Your task to perform on an android device: delete location history Image 0: 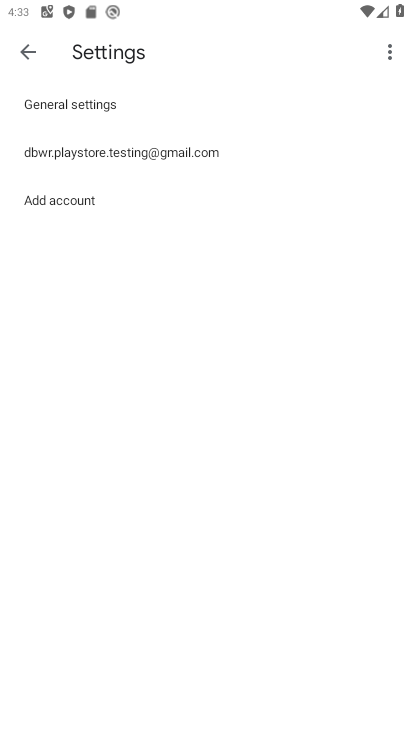
Step 0: click (201, 2)
Your task to perform on an android device: delete location history Image 1: 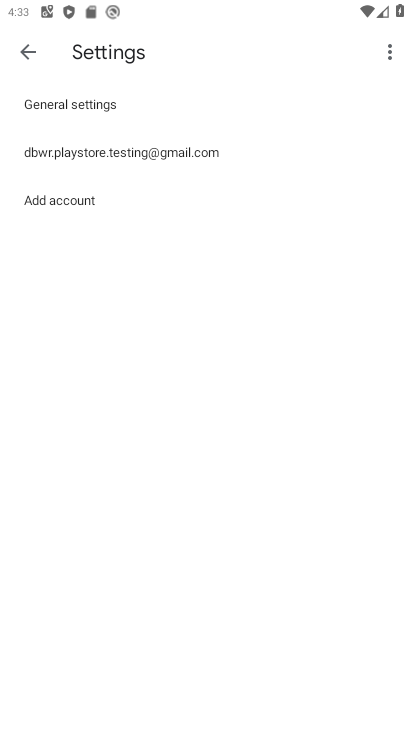
Step 1: press home button
Your task to perform on an android device: delete location history Image 2: 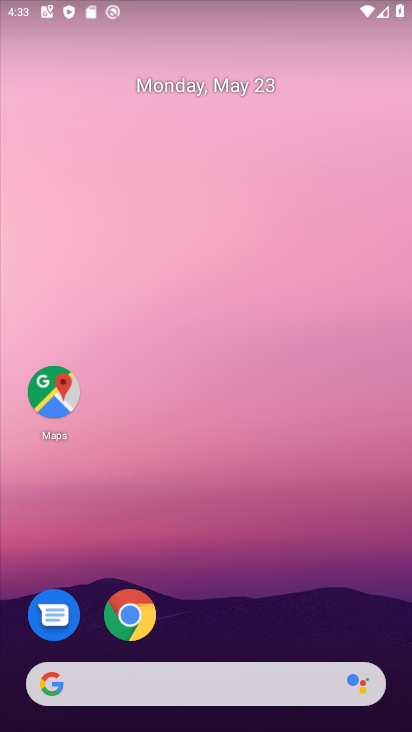
Step 2: click (55, 385)
Your task to perform on an android device: delete location history Image 3: 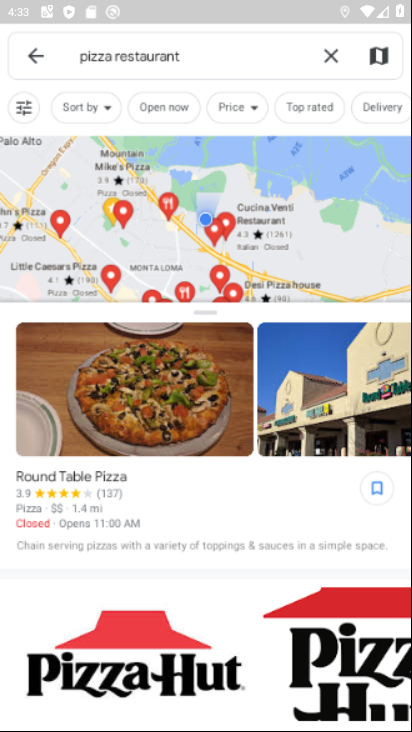
Step 3: click (36, 58)
Your task to perform on an android device: delete location history Image 4: 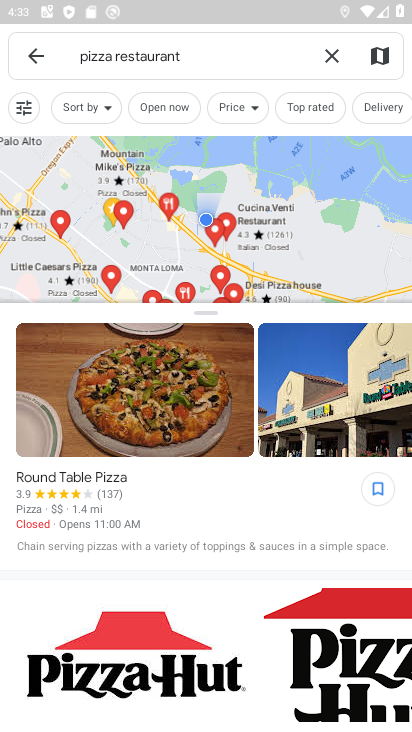
Step 4: click (34, 50)
Your task to perform on an android device: delete location history Image 5: 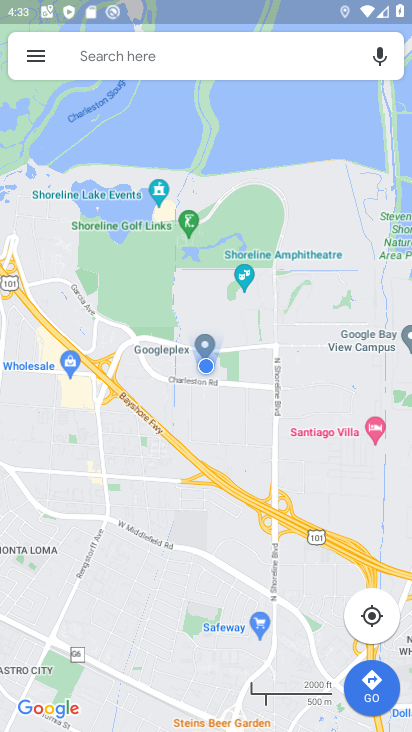
Step 5: click (26, 49)
Your task to perform on an android device: delete location history Image 6: 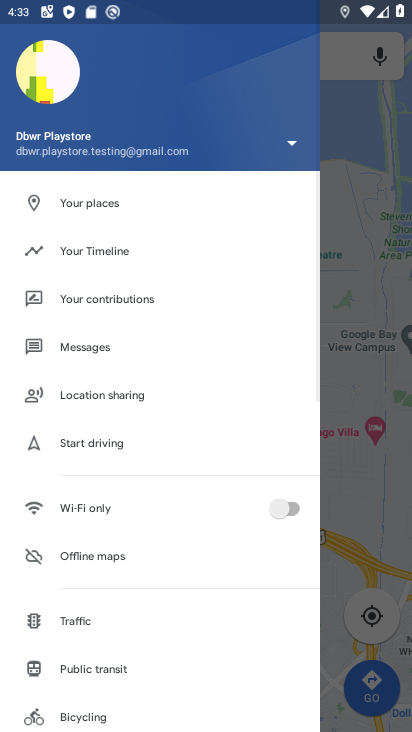
Step 6: click (165, 248)
Your task to perform on an android device: delete location history Image 7: 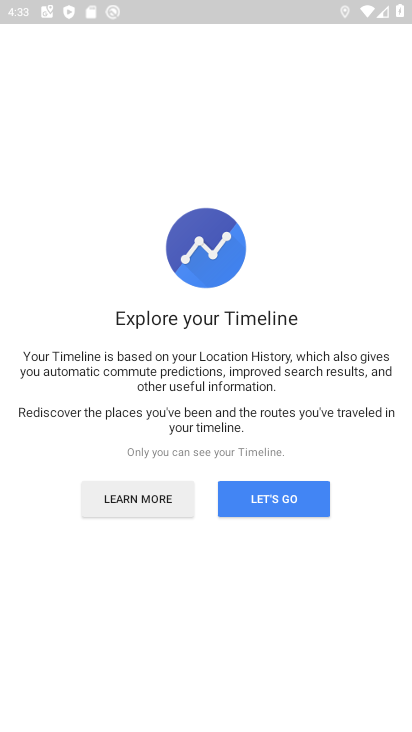
Step 7: click (275, 509)
Your task to perform on an android device: delete location history Image 8: 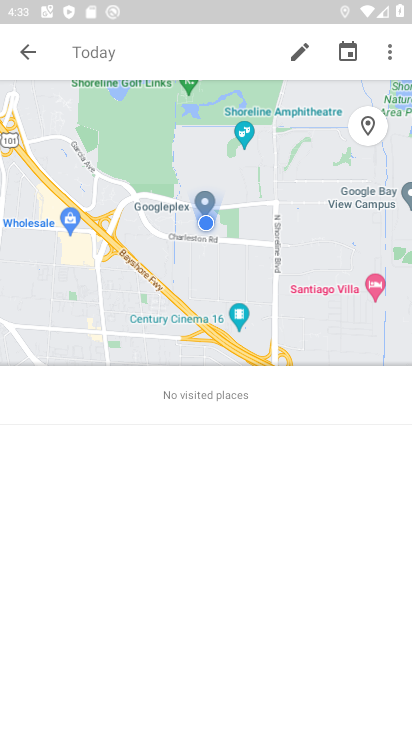
Step 8: click (387, 46)
Your task to perform on an android device: delete location history Image 9: 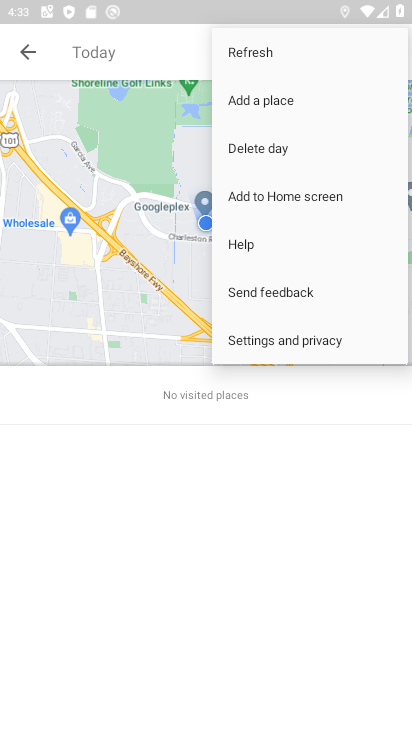
Step 9: click (275, 345)
Your task to perform on an android device: delete location history Image 10: 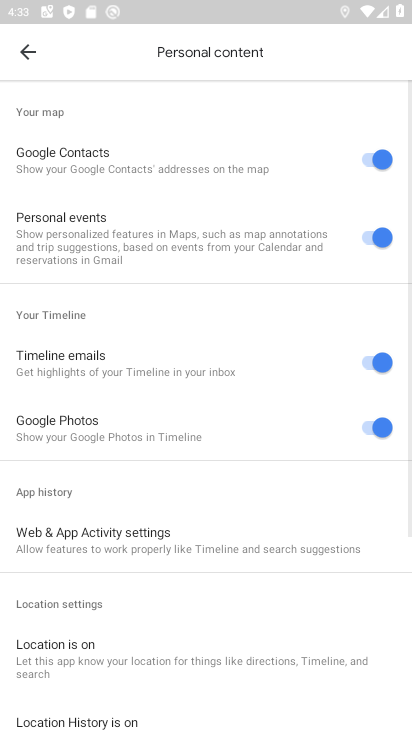
Step 10: drag from (131, 684) to (165, 169)
Your task to perform on an android device: delete location history Image 11: 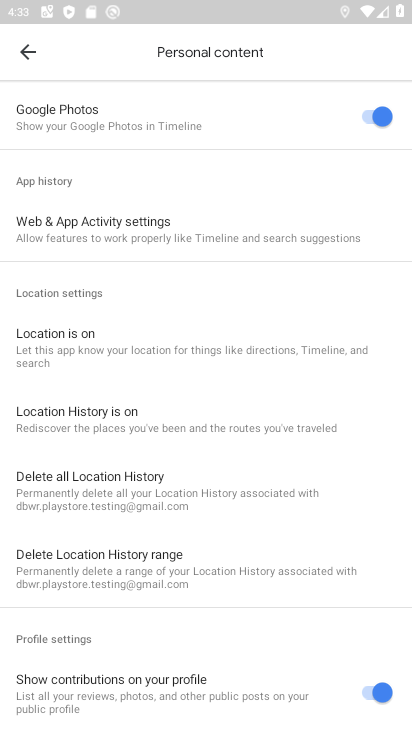
Step 11: click (75, 506)
Your task to perform on an android device: delete location history Image 12: 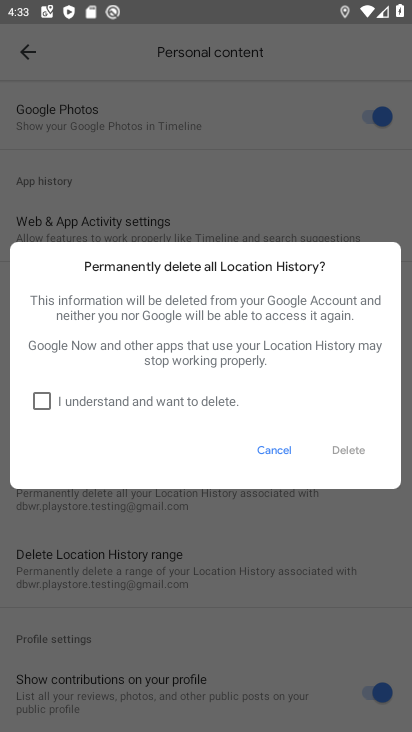
Step 12: click (53, 397)
Your task to perform on an android device: delete location history Image 13: 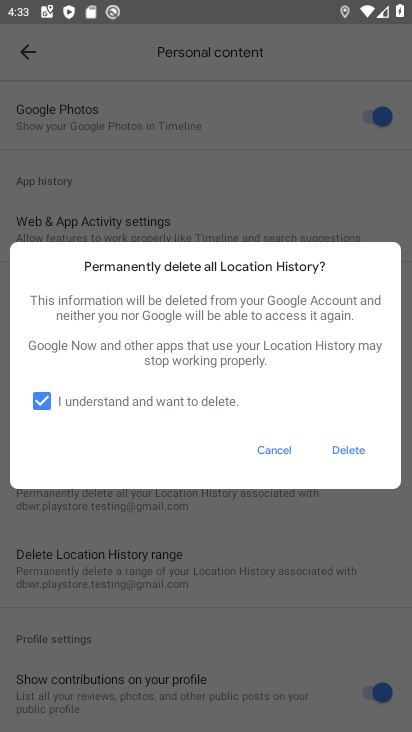
Step 13: click (359, 441)
Your task to perform on an android device: delete location history Image 14: 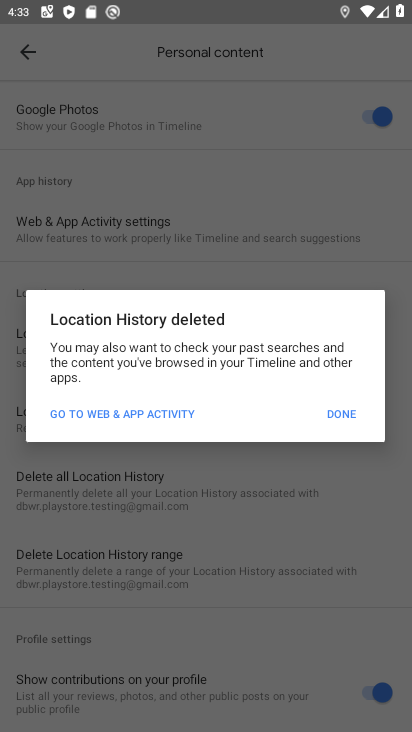
Step 14: click (328, 422)
Your task to perform on an android device: delete location history Image 15: 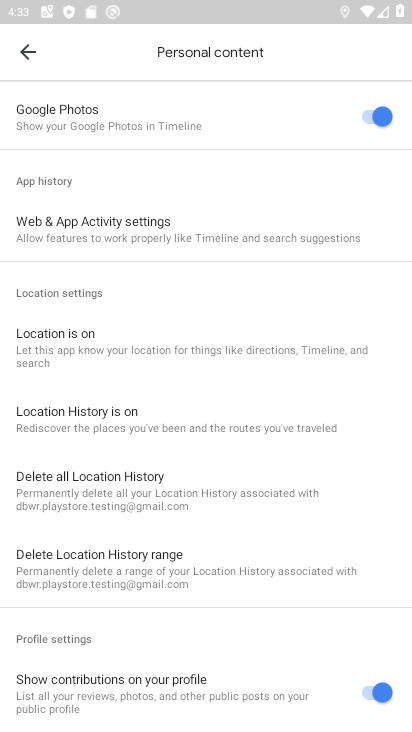
Step 15: task complete